Your task to perform on an android device: delete a single message in the gmail app Image 0: 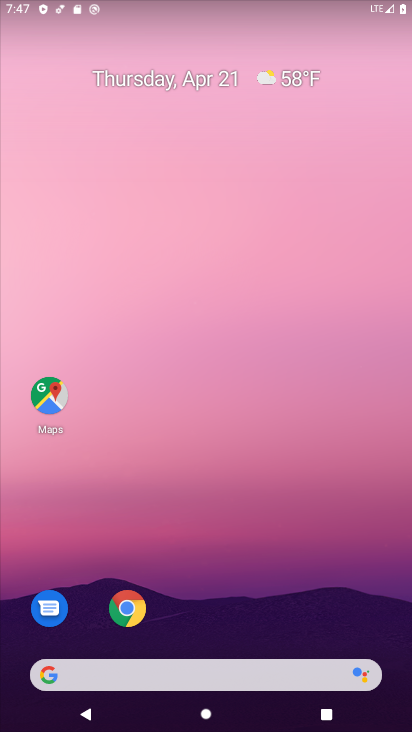
Step 0: drag from (275, 596) to (233, 150)
Your task to perform on an android device: delete a single message in the gmail app Image 1: 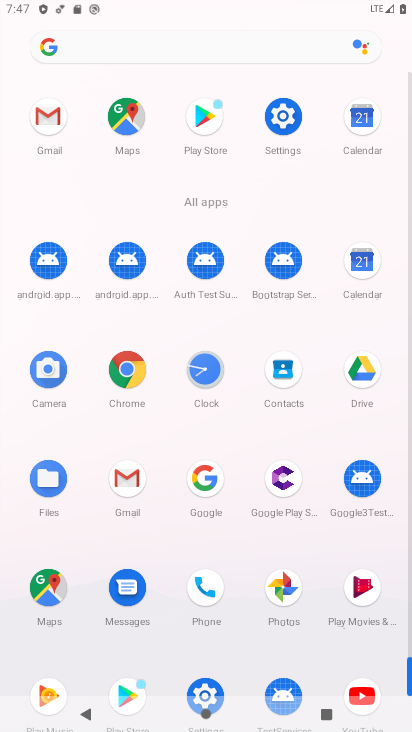
Step 1: click (50, 117)
Your task to perform on an android device: delete a single message in the gmail app Image 2: 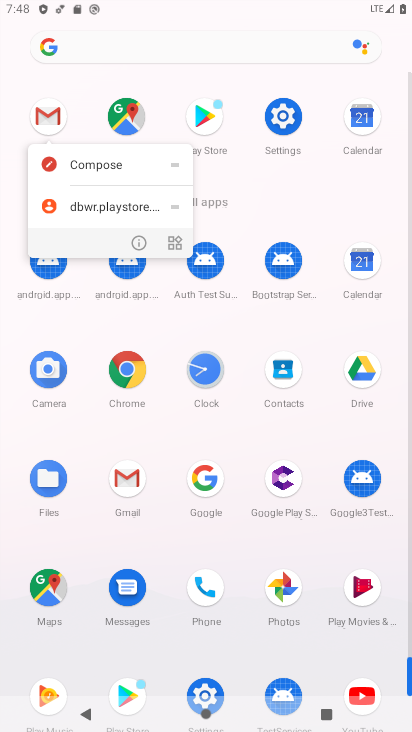
Step 2: click (47, 130)
Your task to perform on an android device: delete a single message in the gmail app Image 3: 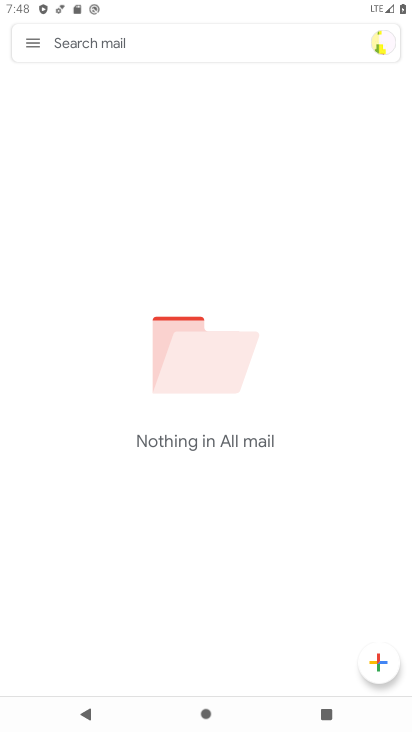
Step 3: task complete